Your task to perform on an android device: Open Chrome and go to the settings page Image 0: 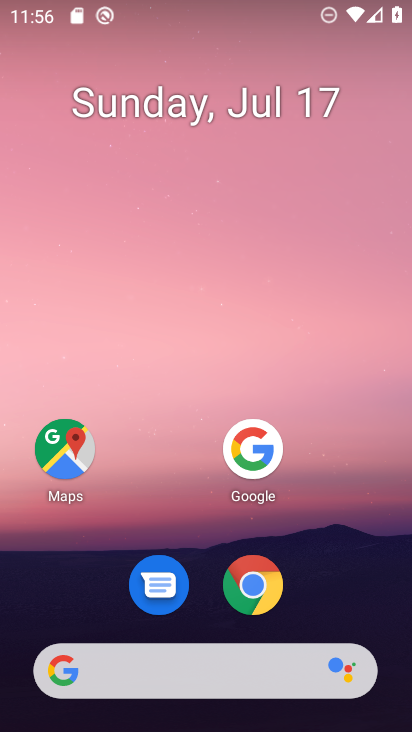
Step 0: click (261, 593)
Your task to perform on an android device: Open Chrome and go to the settings page Image 1: 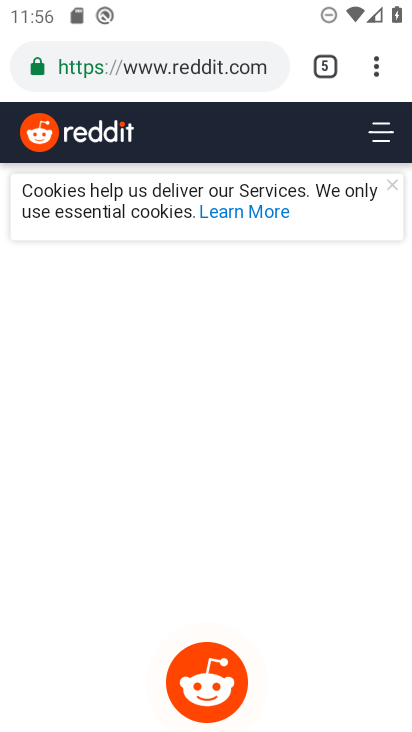
Step 1: task complete